Your task to perform on an android device: Open ESPN.com Image 0: 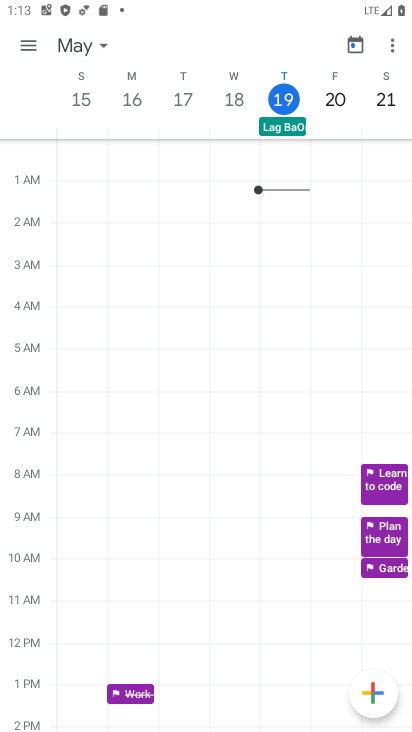
Step 0: press home button
Your task to perform on an android device: Open ESPN.com Image 1: 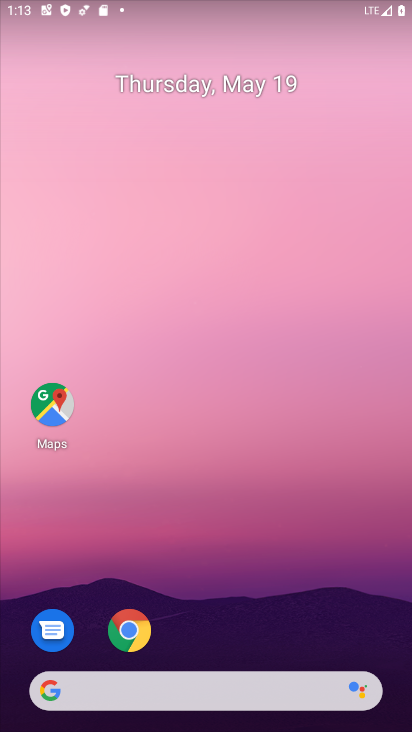
Step 1: click (126, 624)
Your task to perform on an android device: Open ESPN.com Image 2: 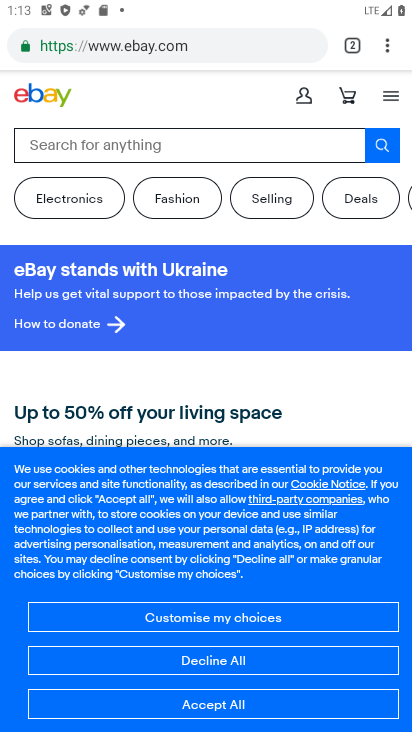
Step 2: click (346, 46)
Your task to perform on an android device: Open ESPN.com Image 3: 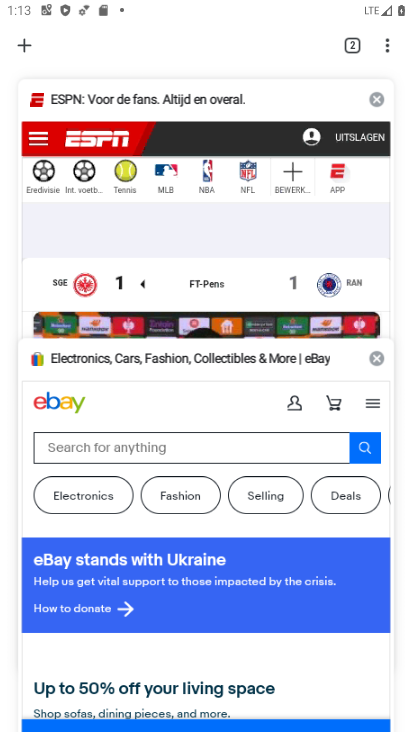
Step 3: click (52, 185)
Your task to perform on an android device: Open ESPN.com Image 4: 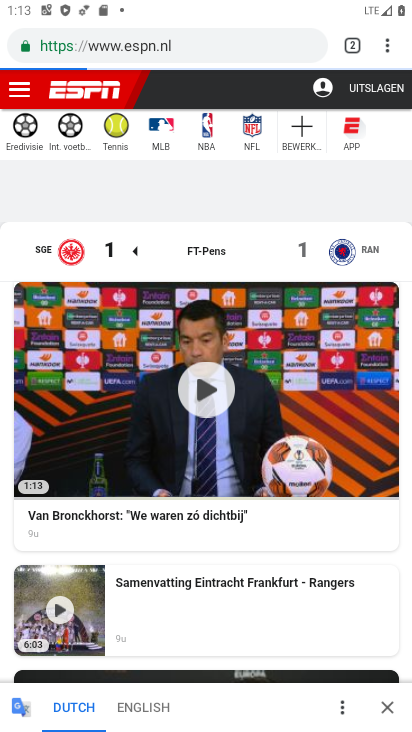
Step 4: task complete